Your task to perform on an android device: What is the news today? Image 0: 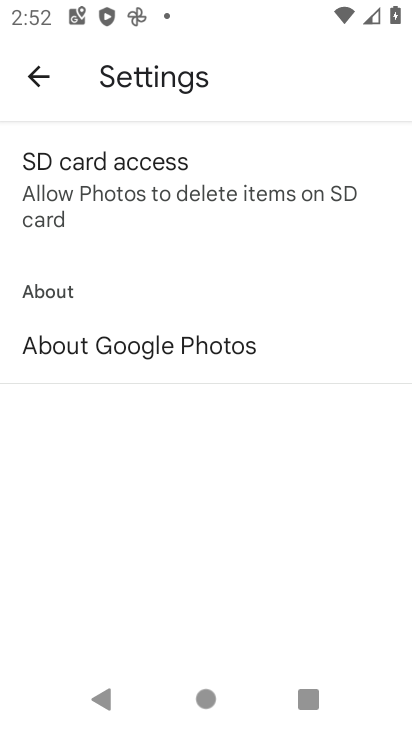
Step 0: press home button
Your task to perform on an android device: What is the news today? Image 1: 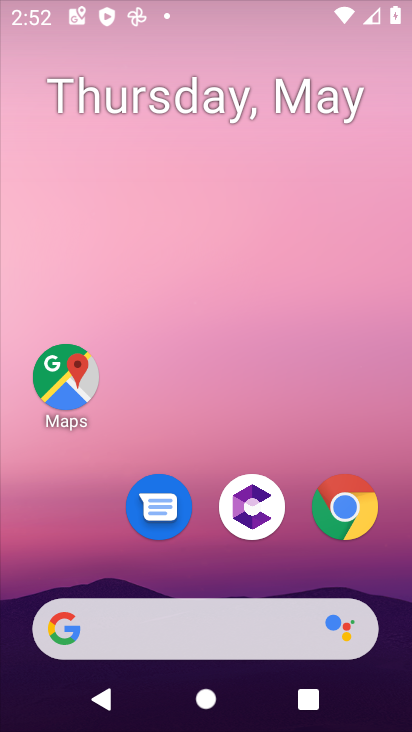
Step 1: click (185, 622)
Your task to perform on an android device: What is the news today? Image 2: 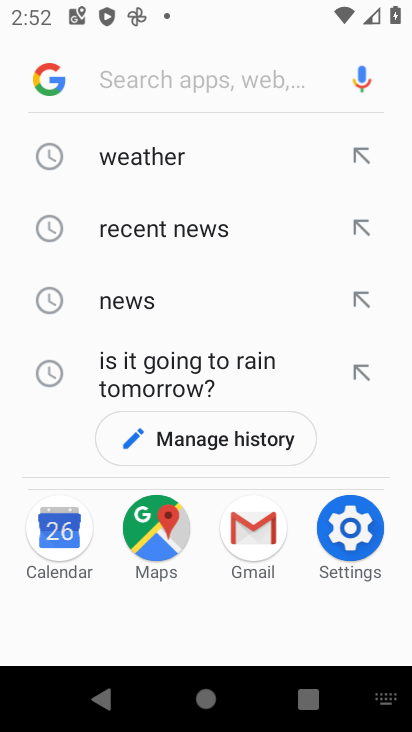
Step 2: type "news today"
Your task to perform on an android device: What is the news today? Image 3: 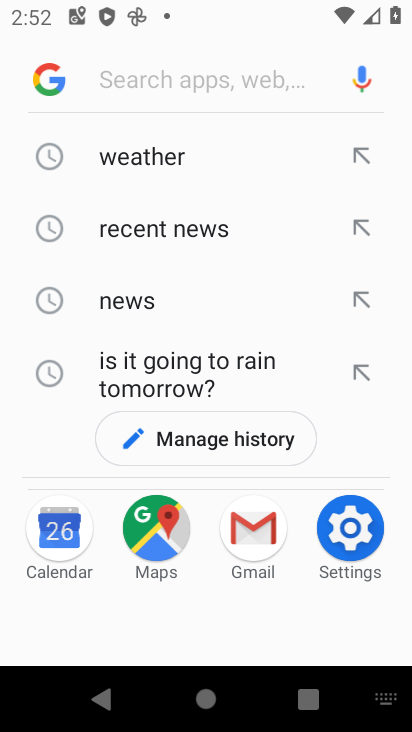
Step 3: click (160, 90)
Your task to perform on an android device: What is the news today? Image 4: 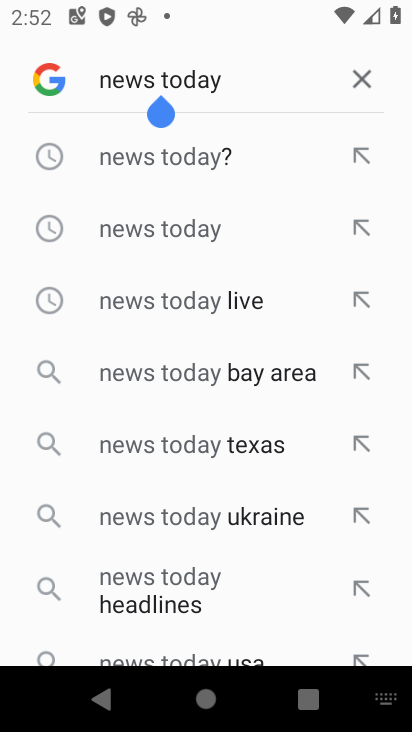
Step 4: click (186, 162)
Your task to perform on an android device: What is the news today? Image 5: 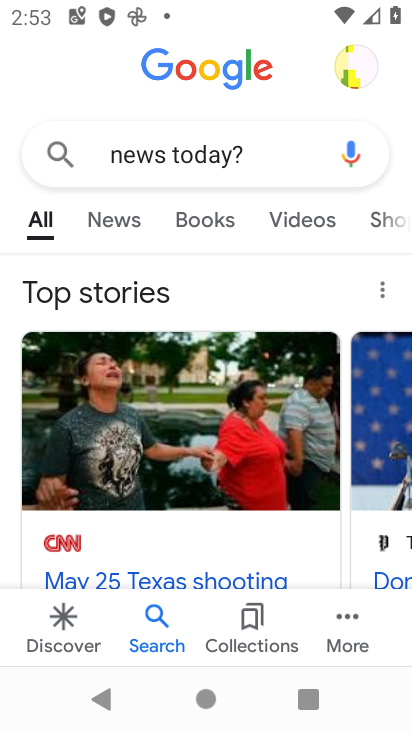
Step 5: task complete